Your task to perform on an android device: Search for "jbl charge 4" on bestbuy.com, select the first entry, add it to the cart, then select checkout. Image 0: 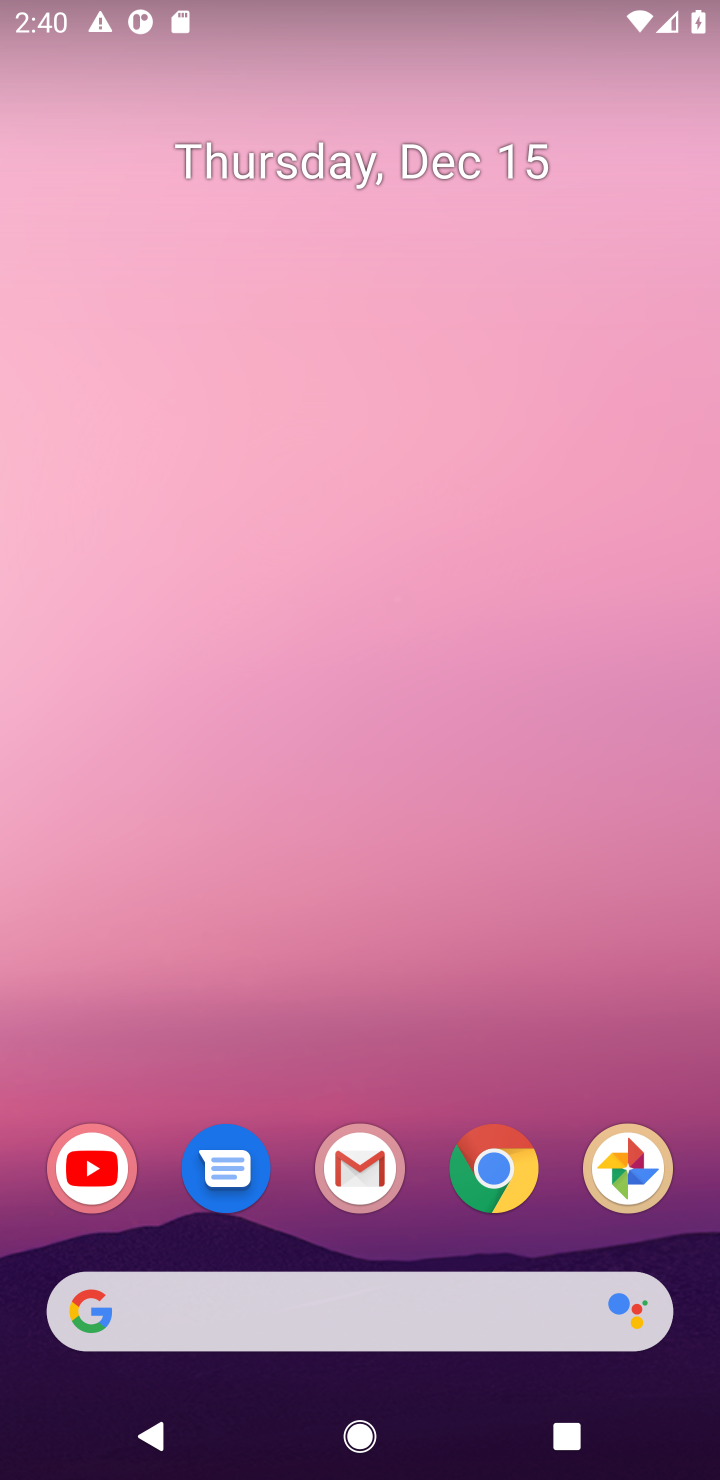
Step 0: click (498, 1172)
Your task to perform on an android device: Search for "jbl charge 4" on bestbuy.com, select the first entry, add it to the cart, then select checkout. Image 1: 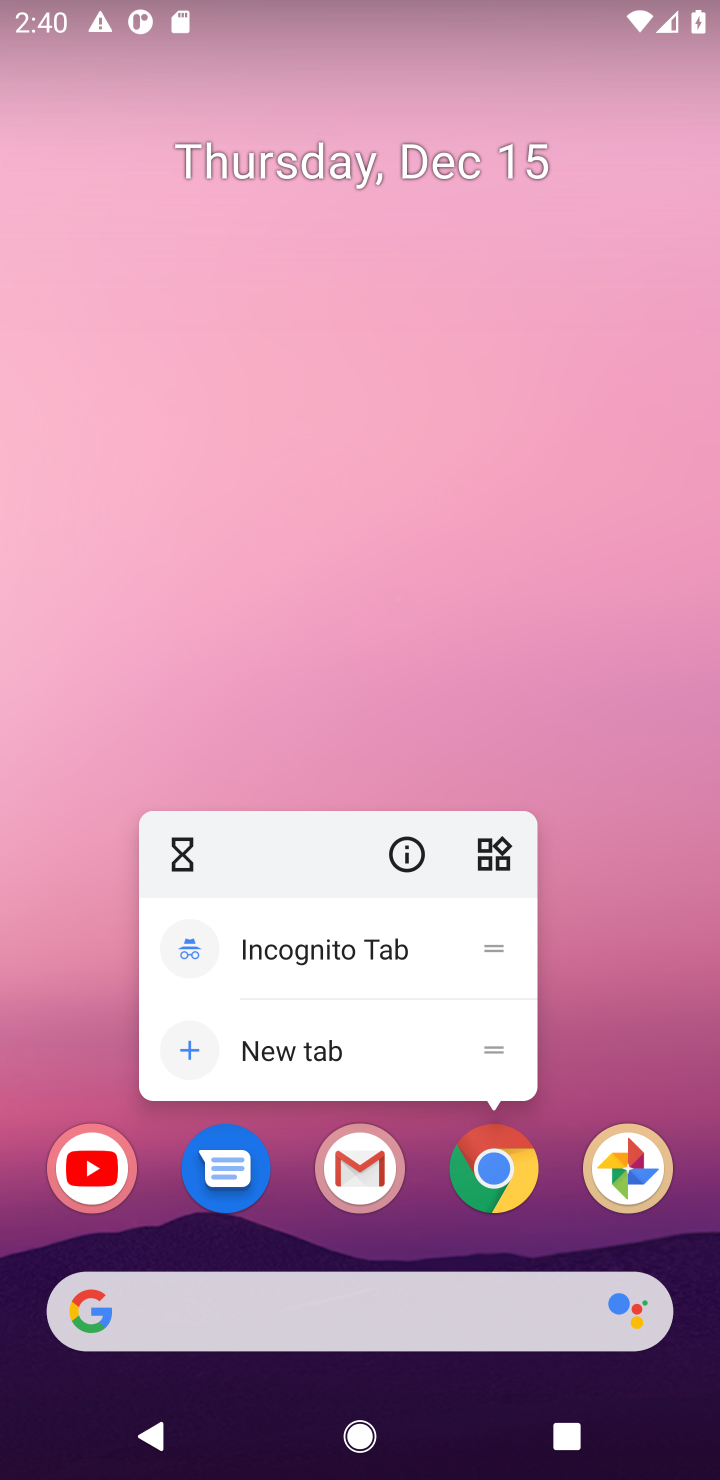
Step 1: click (498, 1172)
Your task to perform on an android device: Search for "jbl charge 4" on bestbuy.com, select the first entry, add it to the cart, then select checkout. Image 2: 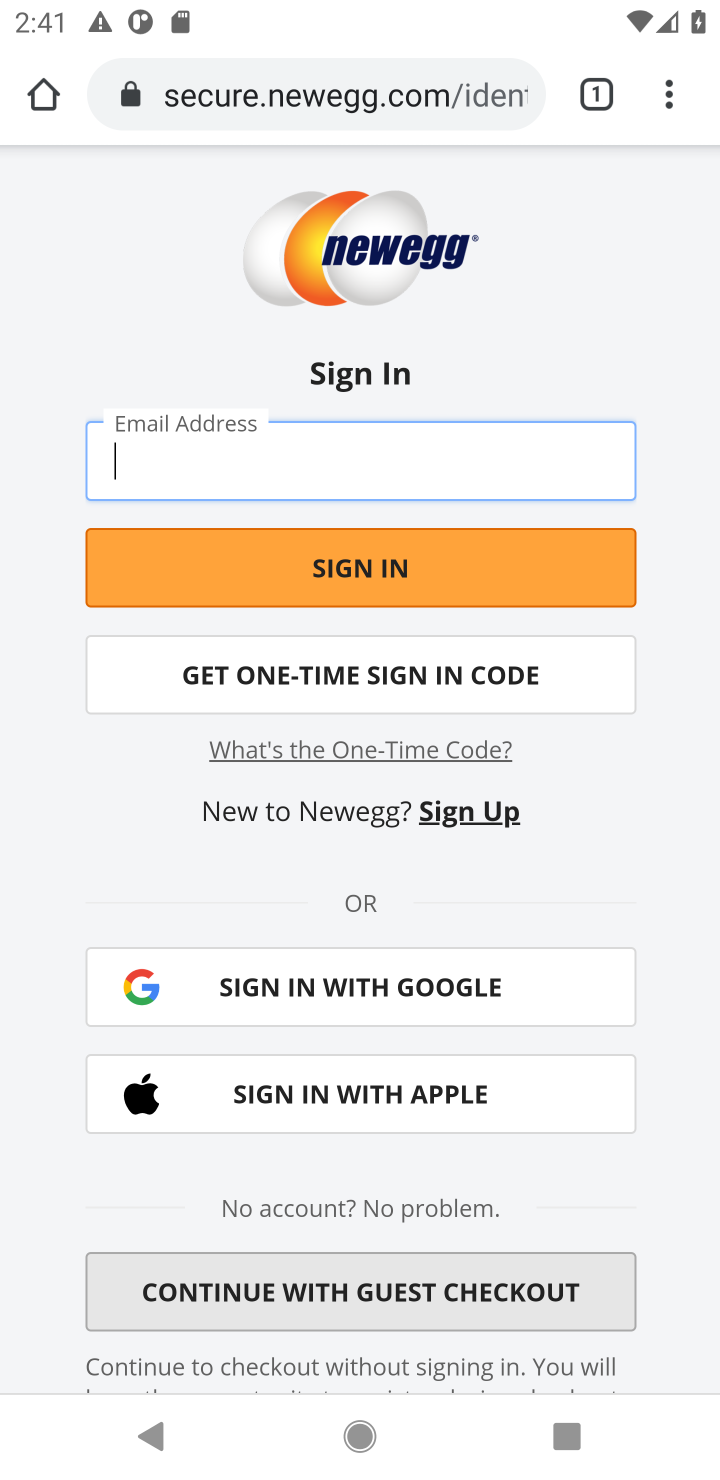
Step 2: click (393, 89)
Your task to perform on an android device: Search for "jbl charge 4" on bestbuy.com, select the first entry, add it to the cart, then select checkout. Image 3: 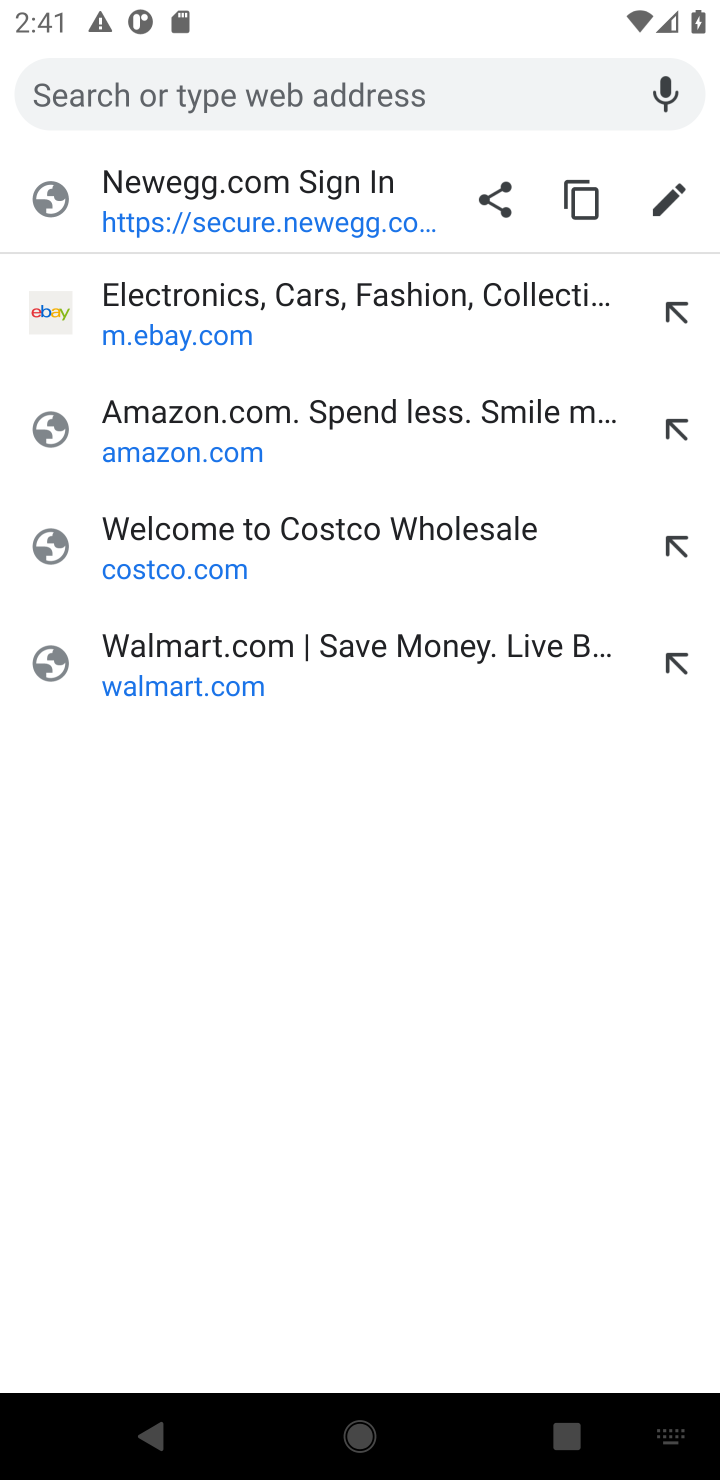
Step 3: type "bestbuy.com"
Your task to perform on an android device: Search for "jbl charge 4" on bestbuy.com, select the first entry, add it to the cart, then select checkout. Image 4: 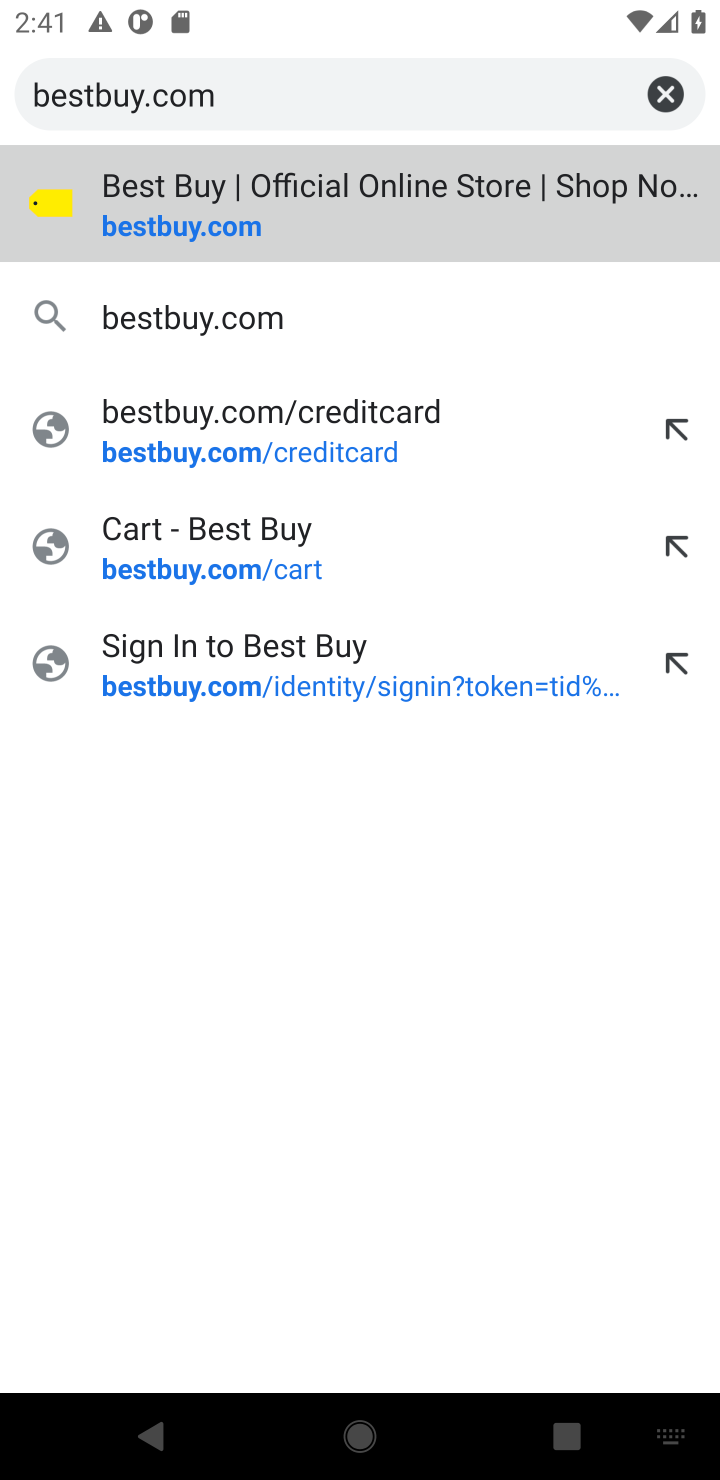
Step 4: press enter
Your task to perform on an android device: Search for "jbl charge 4" on bestbuy.com, select the first entry, add it to the cart, then select checkout. Image 5: 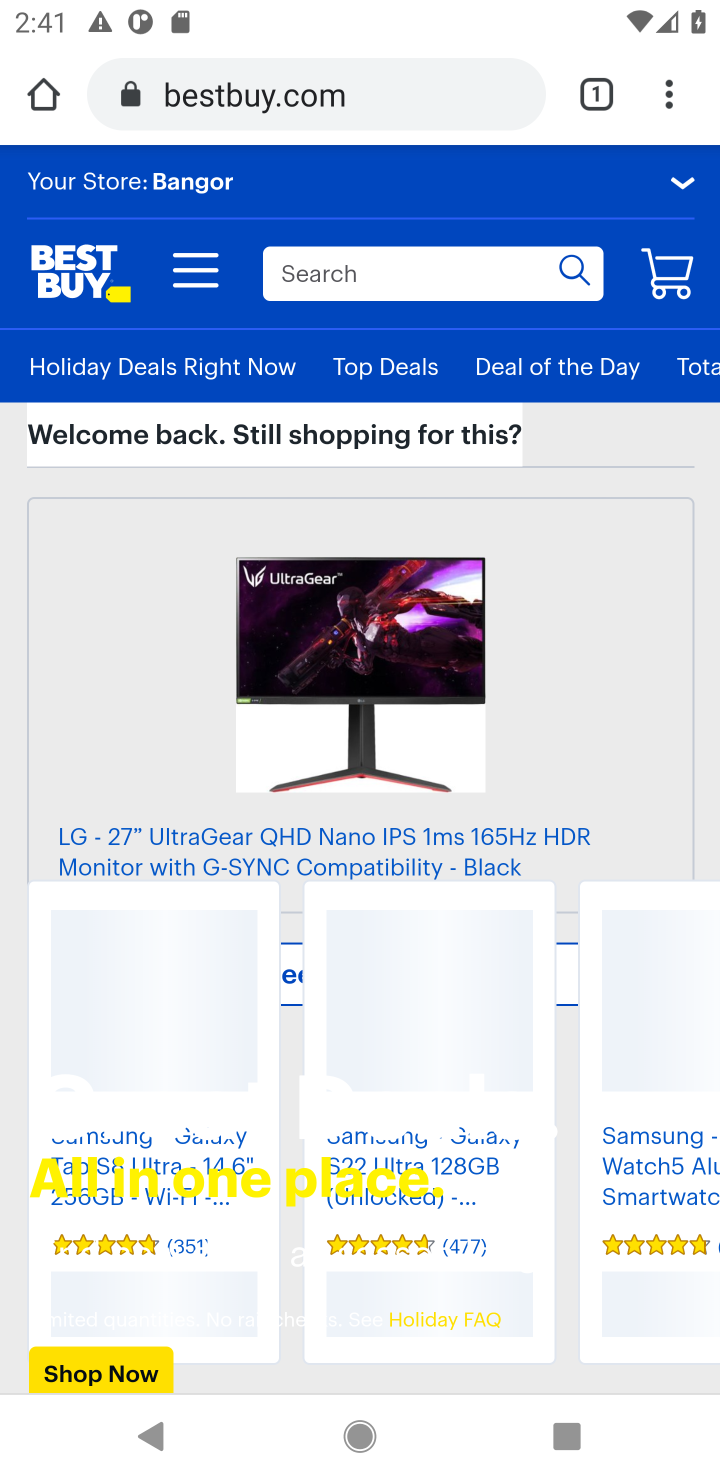
Step 5: click (482, 285)
Your task to perform on an android device: Search for "jbl charge 4" on bestbuy.com, select the first entry, add it to the cart, then select checkout. Image 6: 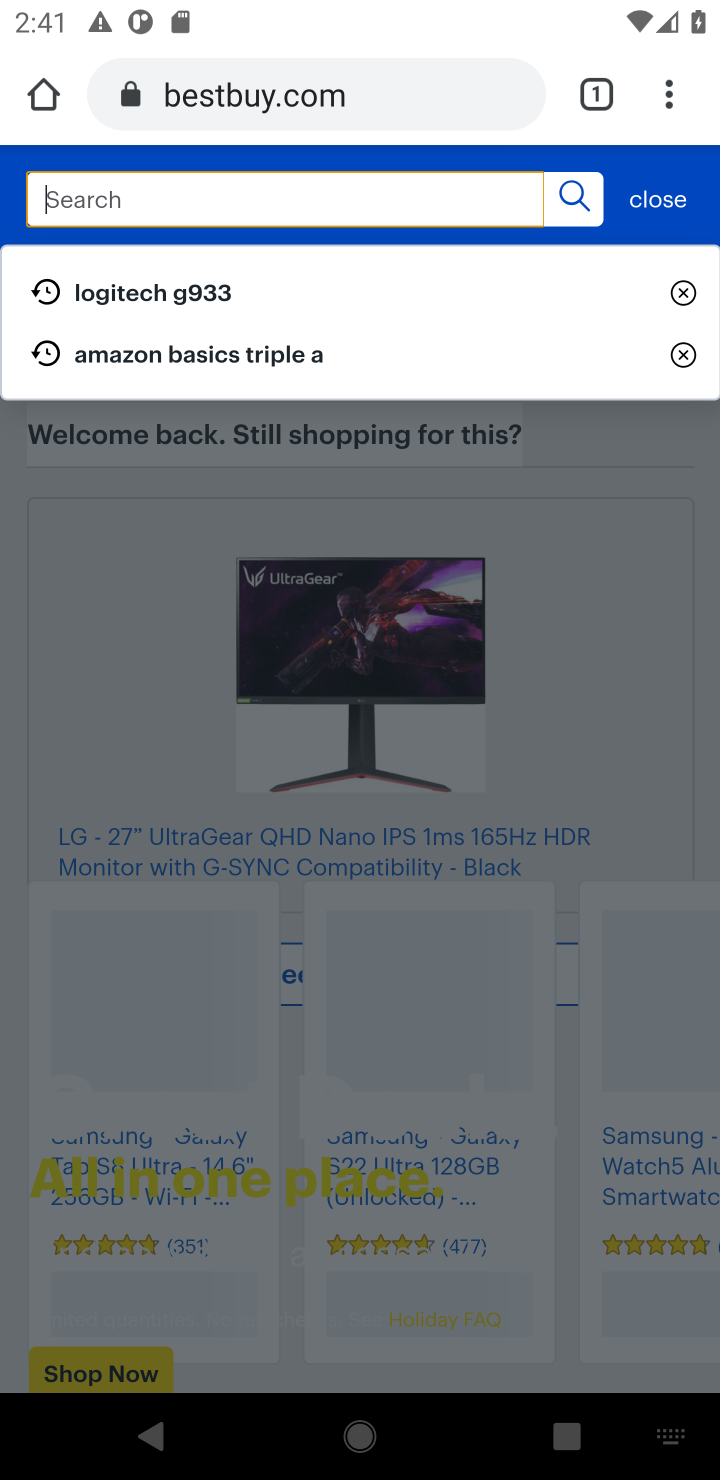
Step 6: press enter
Your task to perform on an android device: Search for "jbl charge 4" on bestbuy.com, select the first entry, add it to the cart, then select checkout. Image 7: 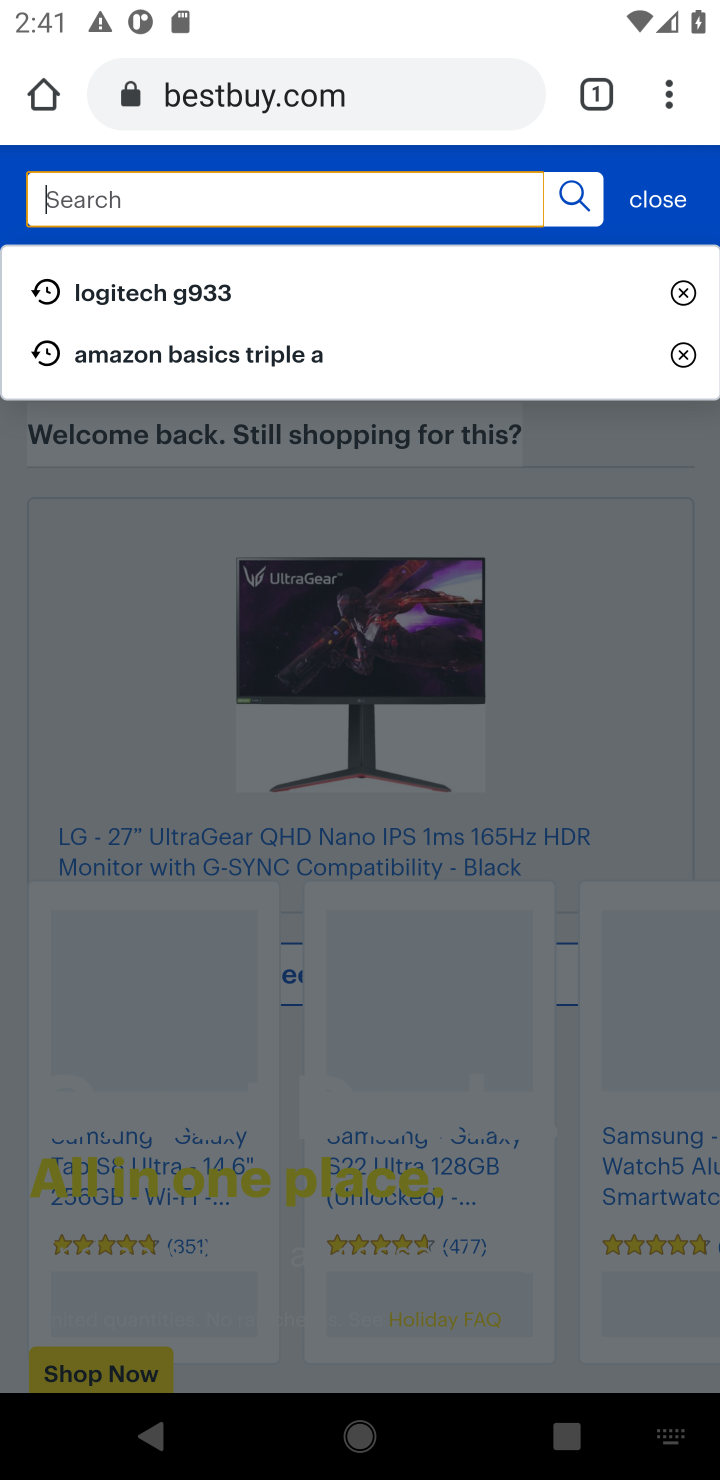
Step 7: type "jbl charge 4"
Your task to perform on an android device: Search for "jbl charge 4" on bestbuy.com, select the first entry, add it to the cart, then select checkout. Image 8: 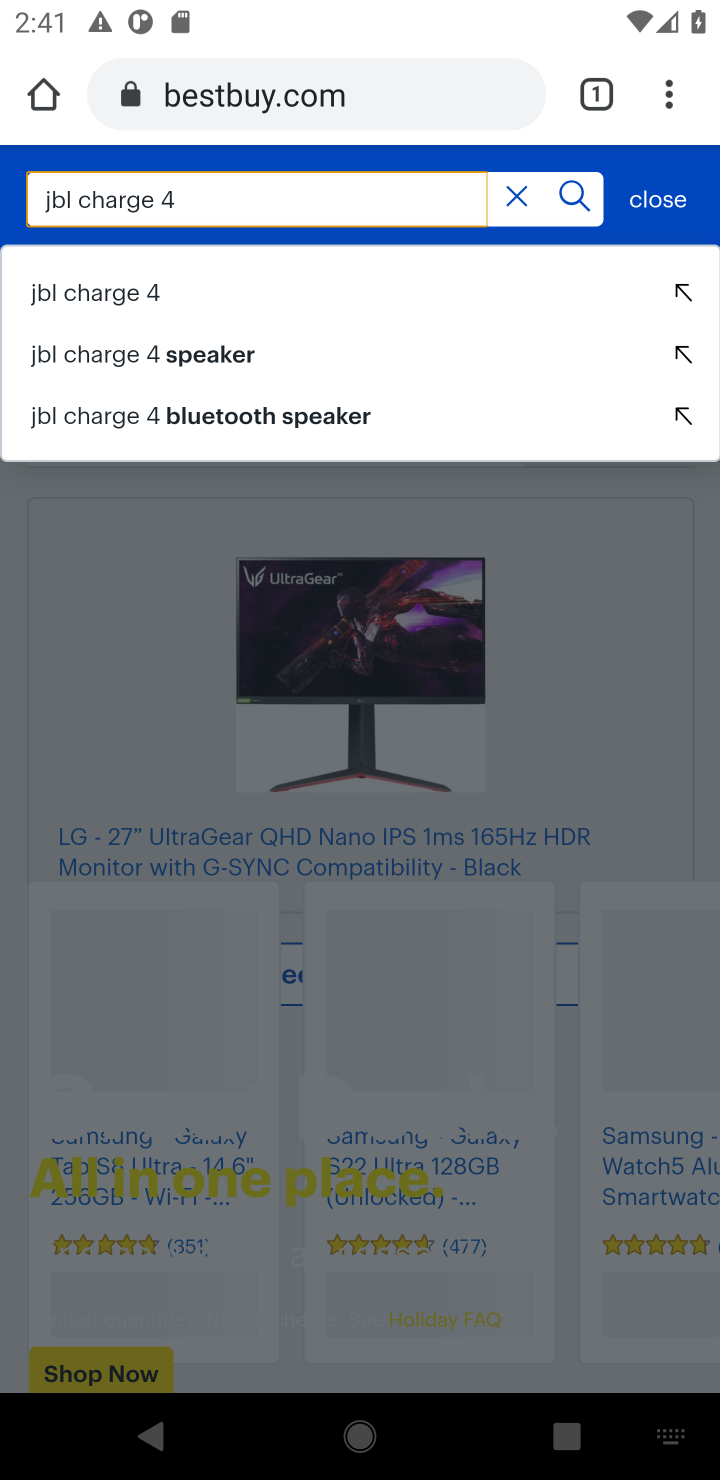
Step 8: click (129, 301)
Your task to perform on an android device: Search for "jbl charge 4" on bestbuy.com, select the first entry, add it to the cart, then select checkout. Image 9: 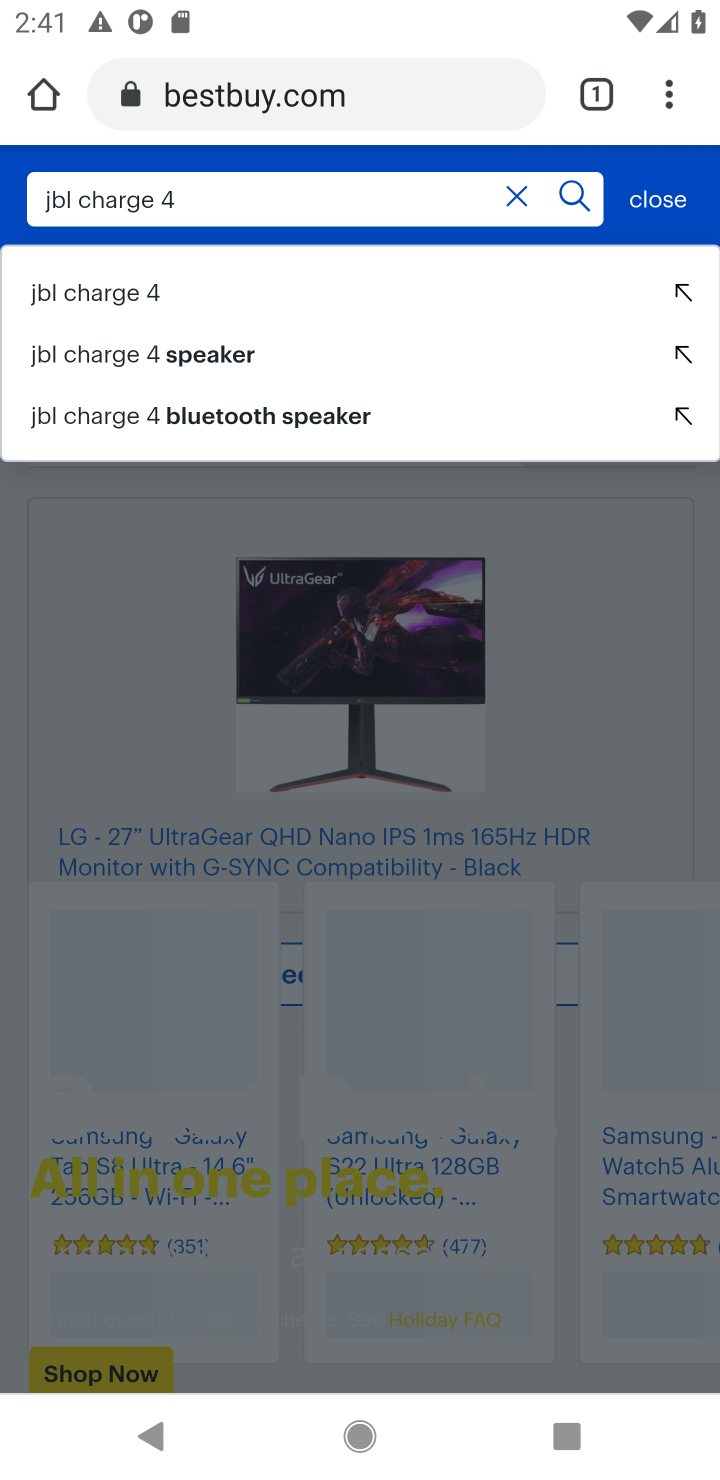
Step 9: click (140, 293)
Your task to perform on an android device: Search for "jbl charge 4" on bestbuy.com, select the first entry, add it to the cart, then select checkout. Image 10: 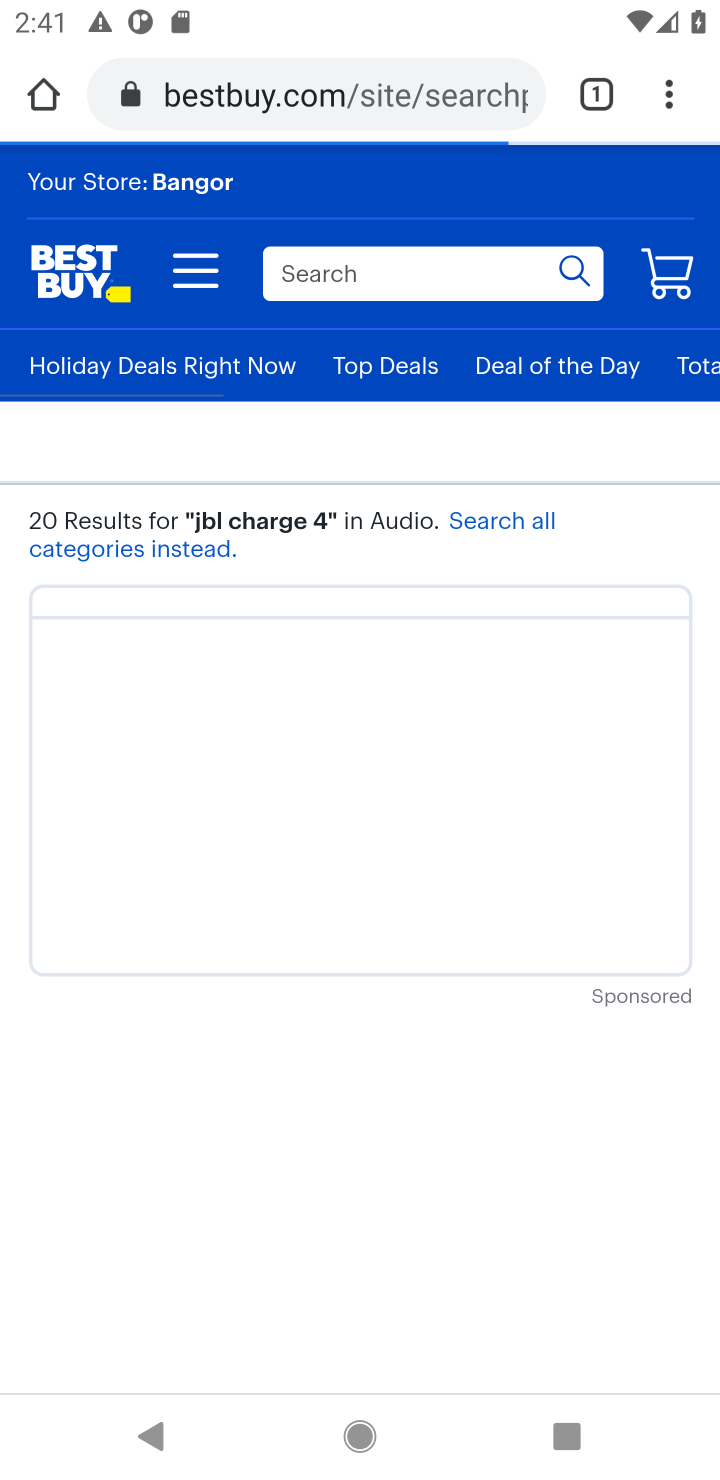
Step 10: click (561, 200)
Your task to perform on an android device: Search for "jbl charge 4" on bestbuy.com, select the first entry, add it to the cart, then select checkout. Image 11: 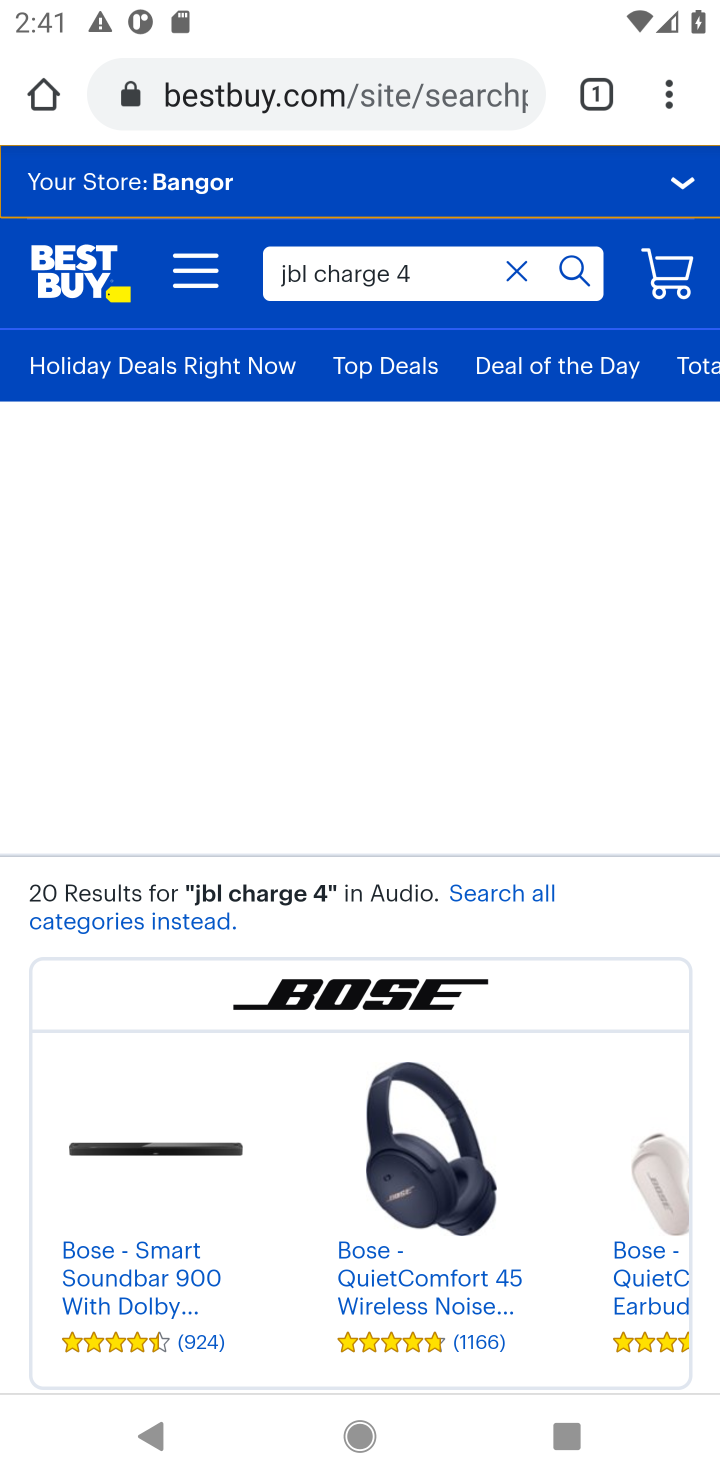
Step 11: task complete